Your task to perform on an android device: open a bookmark in the chrome app Image 0: 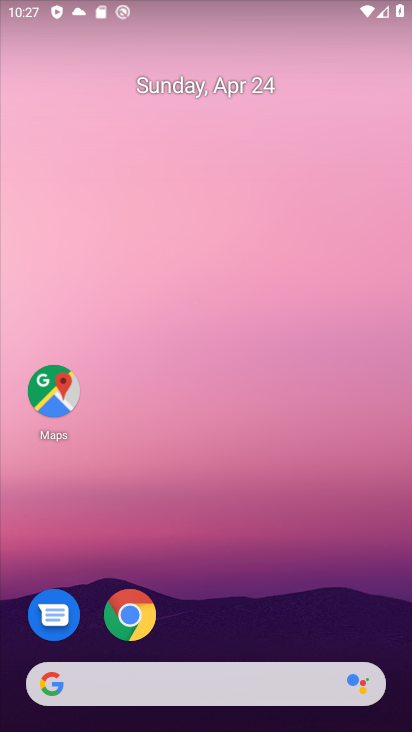
Step 0: drag from (203, 635) to (225, 42)
Your task to perform on an android device: open a bookmark in the chrome app Image 1: 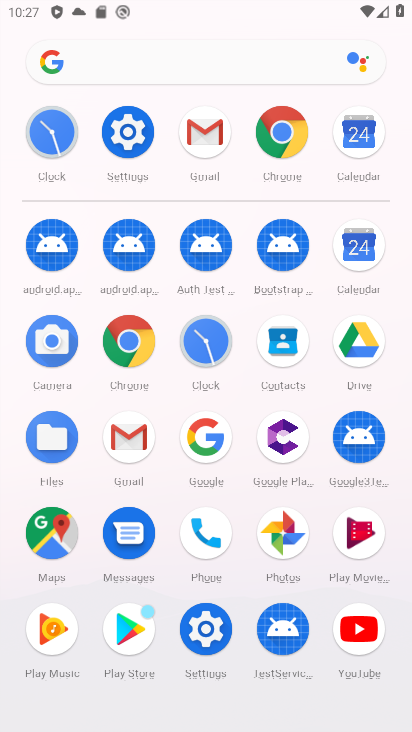
Step 1: click (122, 330)
Your task to perform on an android device: open a bookmark in the chrome app Image 2: 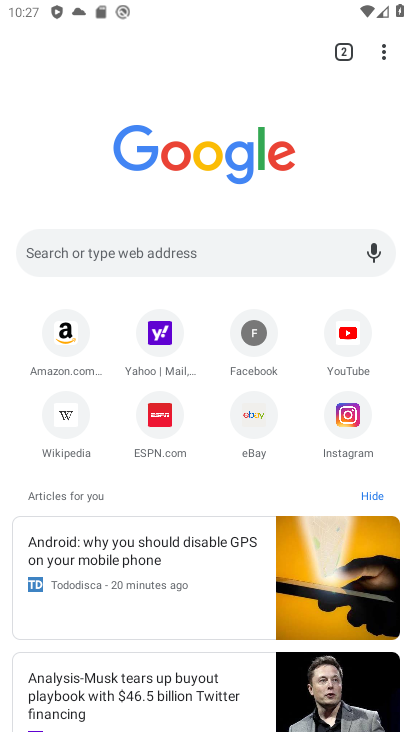
Step 2: click (376, 44)
Your task to perform on an android device: open a bookmark in the chrome app Image 3: 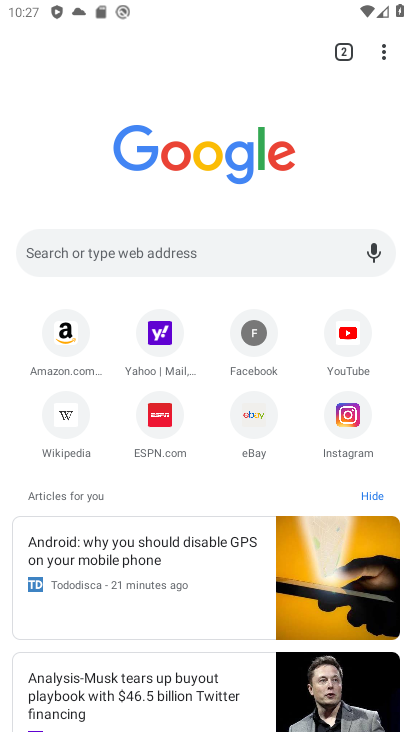
Step 3: click (380, 41)
Your task to perform on an android device: open a bookmark in the chrome app Image 4: 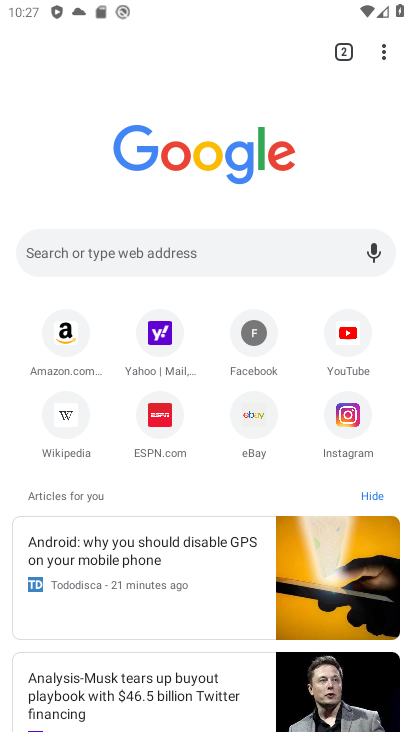
Step 4: click (386, 53)
Your task to perform on an android device: open a bookmark in the chrome app Image 5: 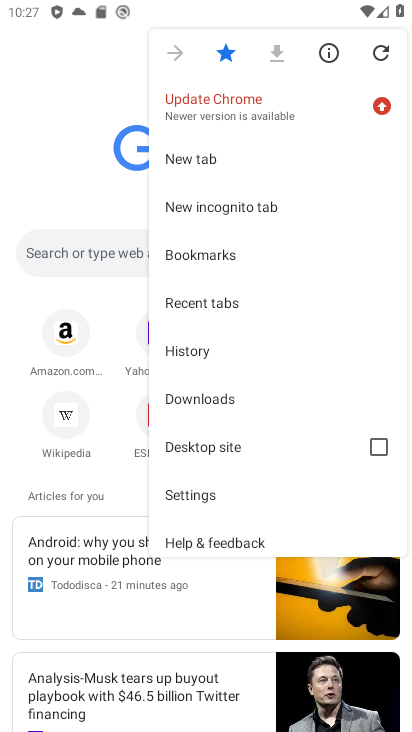
Step 5: click (235, 249)
Your task to perform on an android device: open a bookmark in the chrome app Image 6: 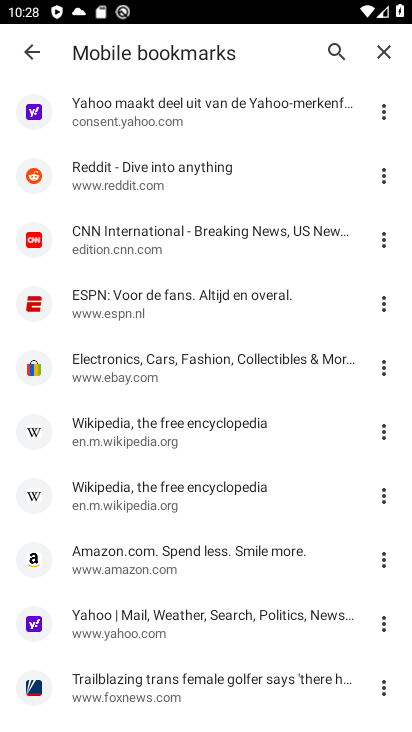
Step 6: click (169, 235)
Your task to perform on an android device: open a bookmark in the chrome app Image 7: 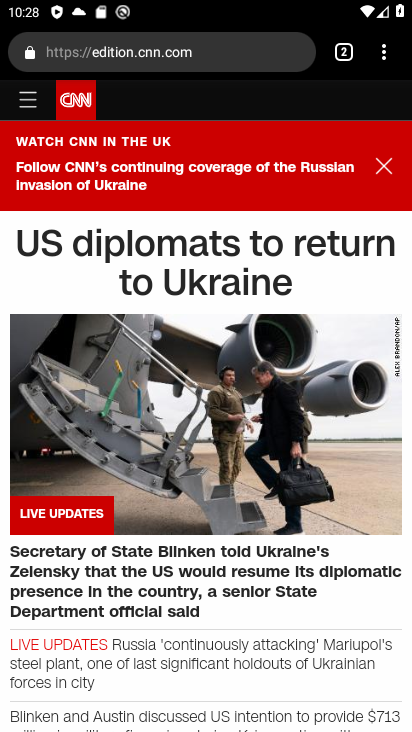
Step 7: task complete